Your task to perform on an android device: turn off location Image 0: 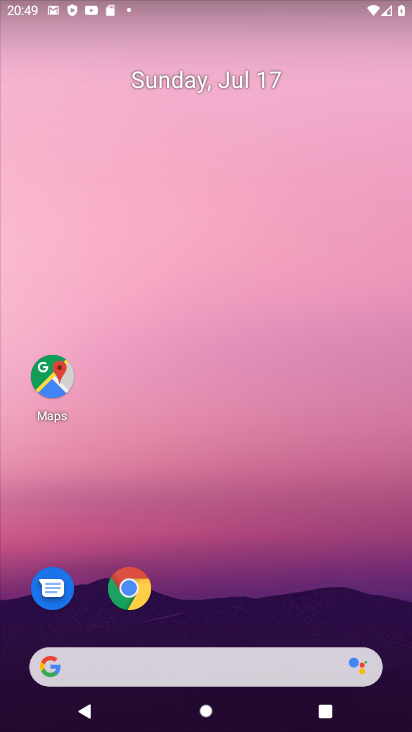
Step 0: press home button
Your task to perform on an android device: turn off location Image 1: 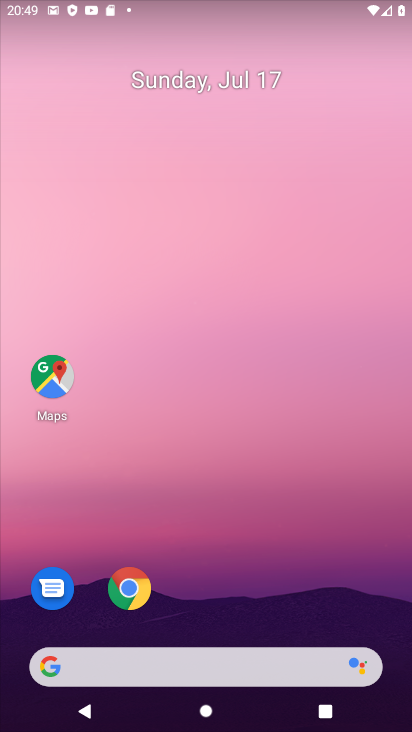
Step 1: drag from (358, 610) to (407, 20)
Your task to perform on an android device: turn off location Image 2: 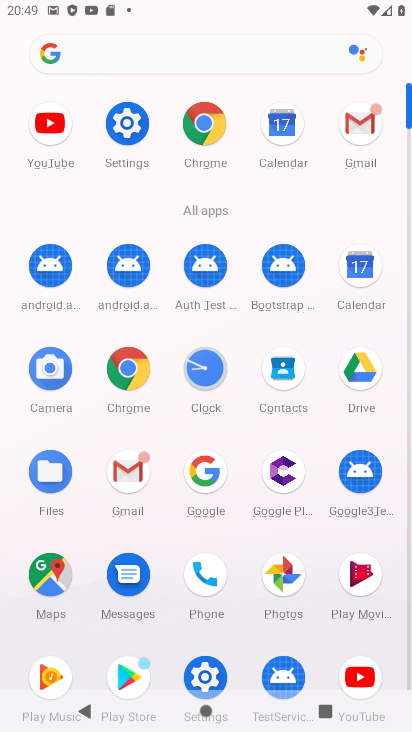
Step 2: click (217, 666)
Your task to perform on an android device: turn off location Image 3: 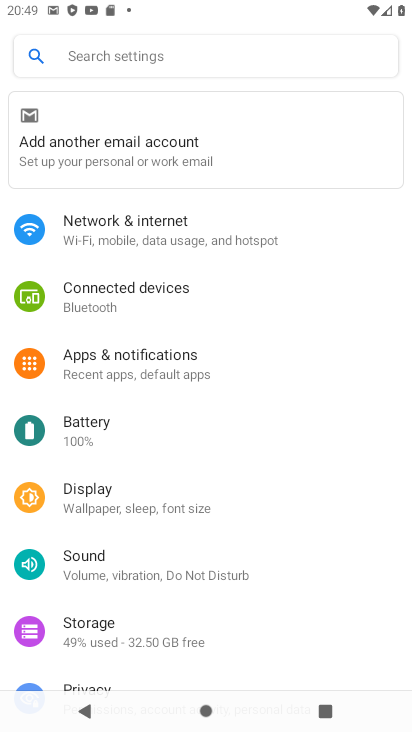
Step 3: drag from (137, 595) to (193, 242)
Your task to perform on an android device: turn off location Image 4: 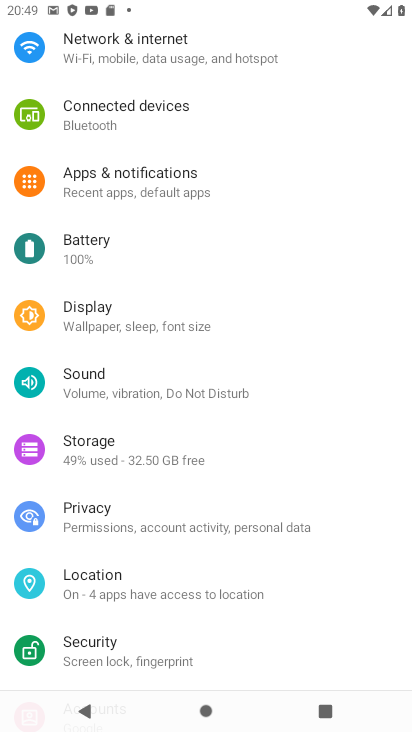
Step 4: click (146, 584)
Your task to perform on an android device: turn off location Image 5: 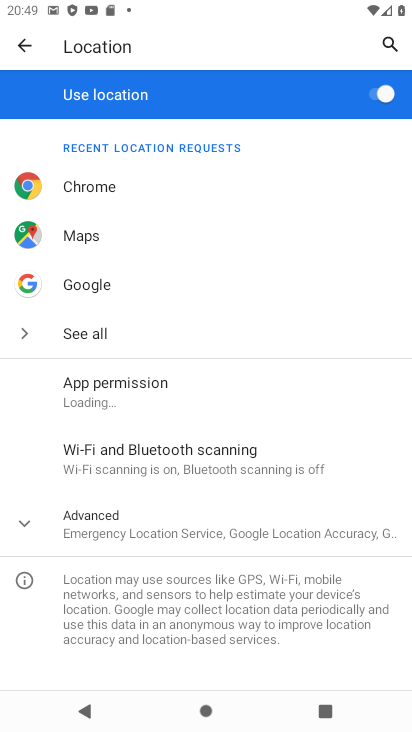
Step 5: click (366, 92)
Your task to perform on an android device: turn off location Image 6: 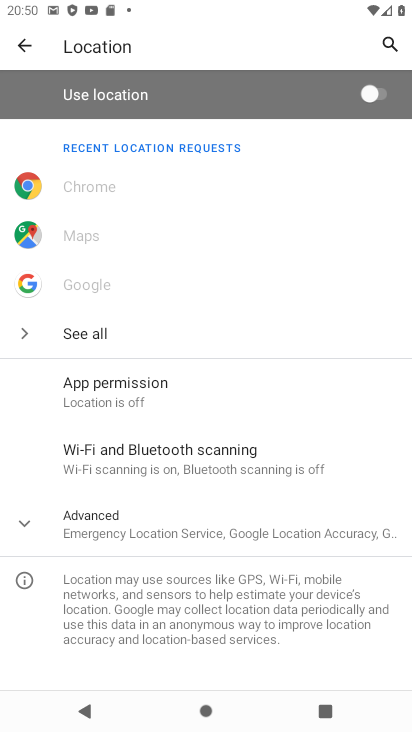
Step 6: task complete